Your task to perform on an android device: turn on notifications settings in the gmail app Image 0: 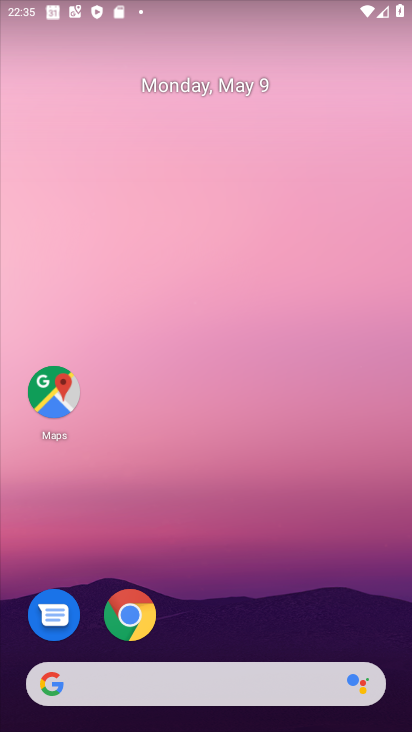
Step 0: drag from (230, 591) to (246, 276)
Your task to perform on an android device: turn on notifications settings in the gmail app Image 1: 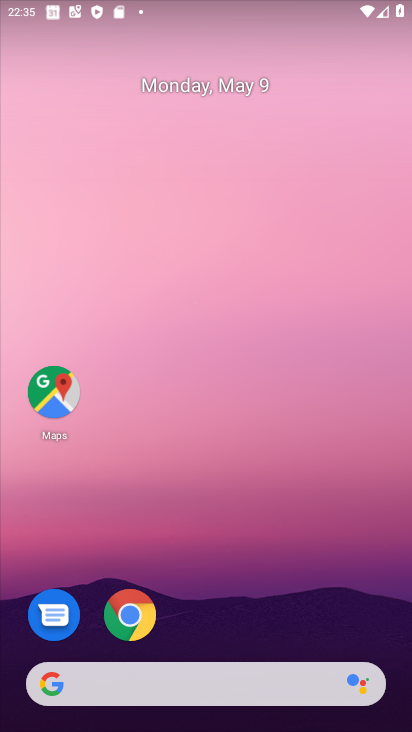
Step 1: drag from (259, 638) to (268, 188)
Your task to perform on an android device: turn on notifications settings in the gmail app Image 2: 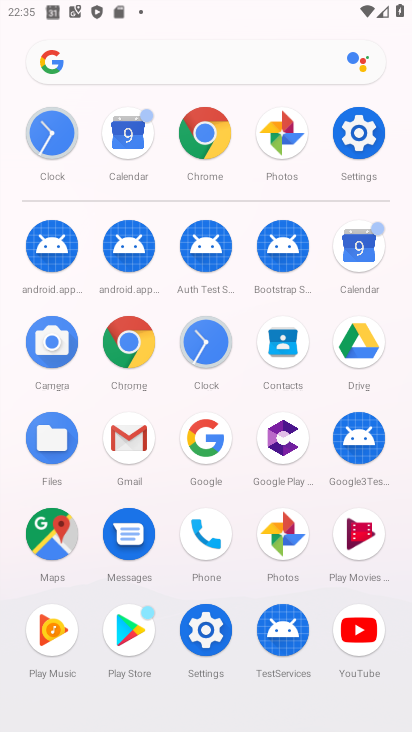
Step 2: click (120, 444)
Your task to perform on an android device: turn on notifications settings in the gmail app Image 3: 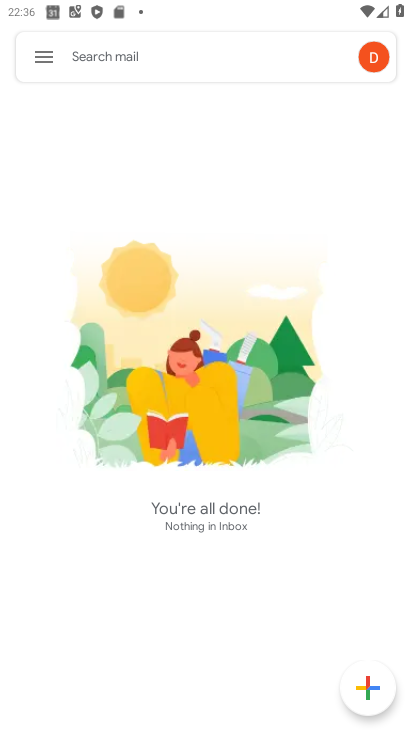
Step 3: click (43, 55)
Your task to perform on an android device: turn on notifications settings in the gmail app Image 4: 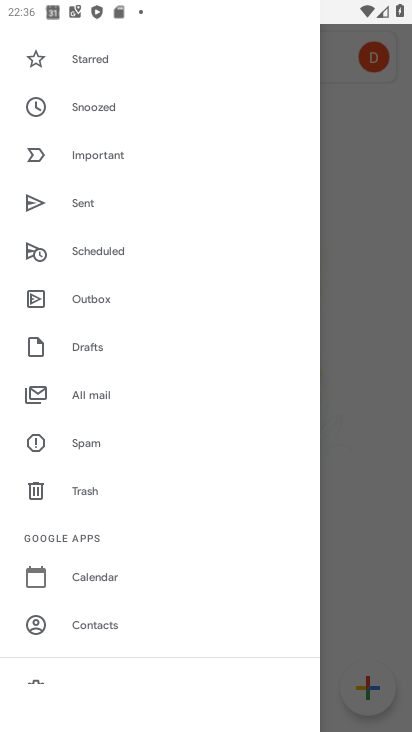
Step 4: drag from (97, 641) to (144, 317)
Your task to perform on an android device: turn on notifications settings in the gmail app Image 5: 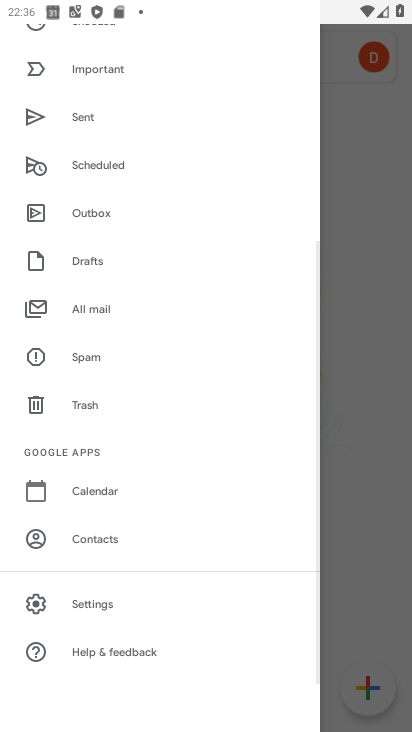
Step 5: click (98, 604)
Your task to perform on an android device: turn on notifications settings in the gmail app Image 6: 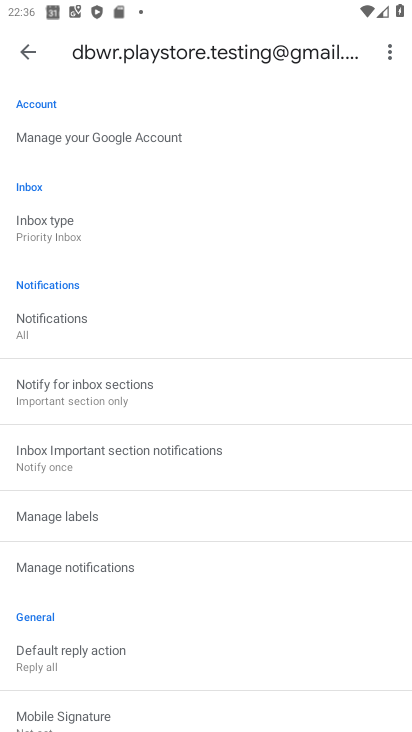
Step 6: click (96, 573)
Your task to perform on an android device: turn on notifications settings in the gmail app Image 7: 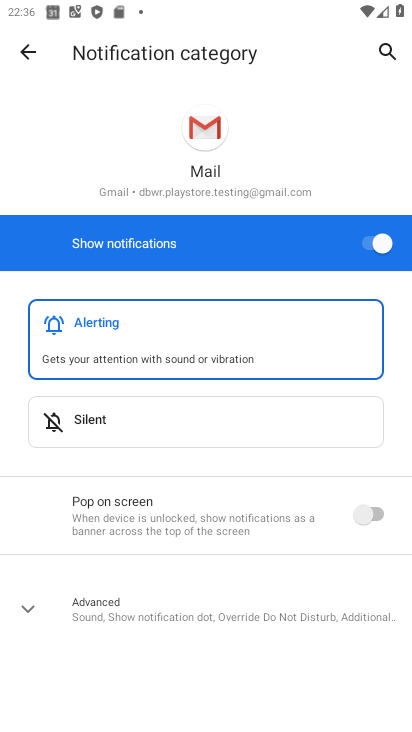
Step 7: task complete